Your task to perform on an android device: allow notifications from all sites in the chrome app Image 0: 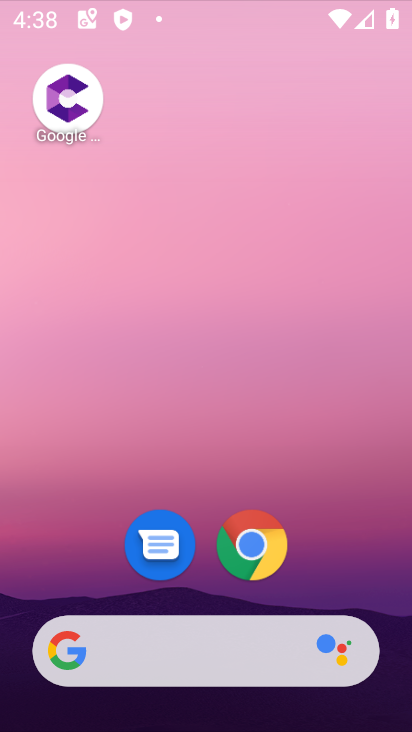
Step 0: drag from (348, 561) to (277, 5)
Your task to perform on an android device: allow notifications from all sites in the chrome app Image 1: 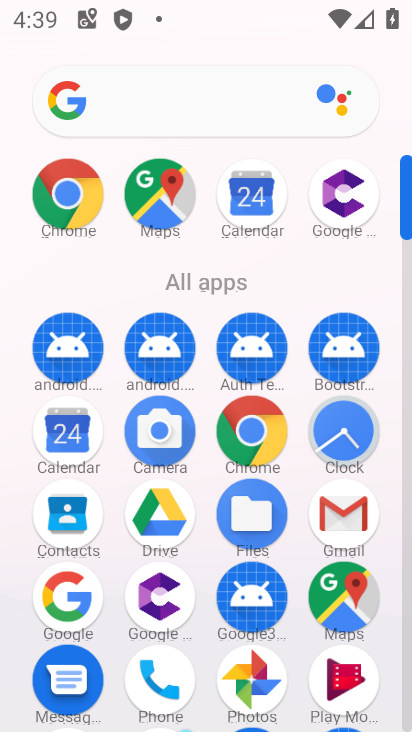
Step 1: click (247, 428)
Your task to perform on an android device: allow notifications from all sites in the chrome app Image 2: 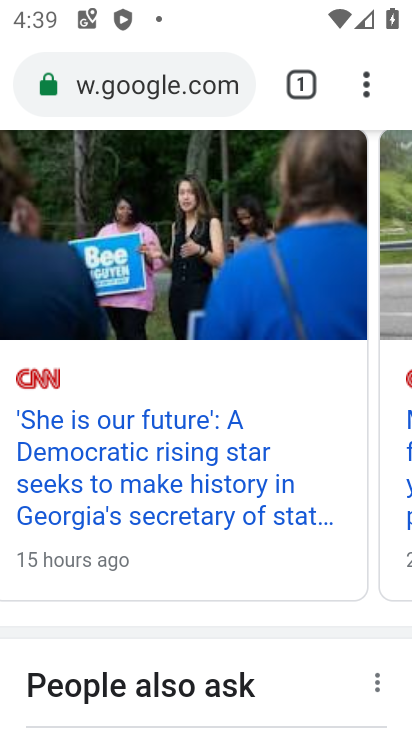
Step 2: drag from (366, 75) to (149, 584)
Your task to perform on an android device: allow notifications from all sites in the chrome app Image 3: 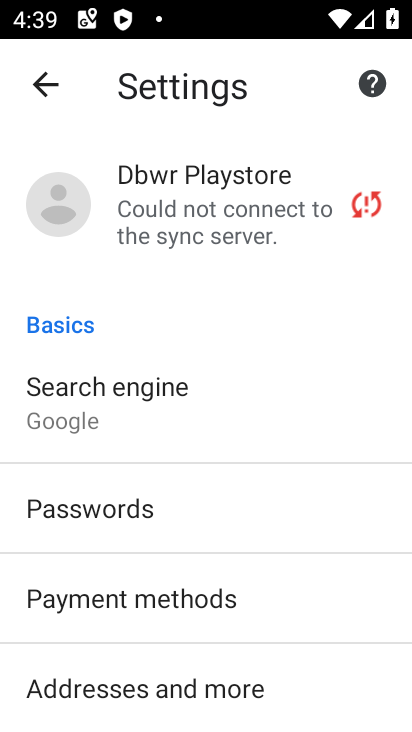
Step 3: drag from (200, 461) to (224, 185)
Your task to perform on an android device: allow notifications from all sites in the chrome app Image 4: 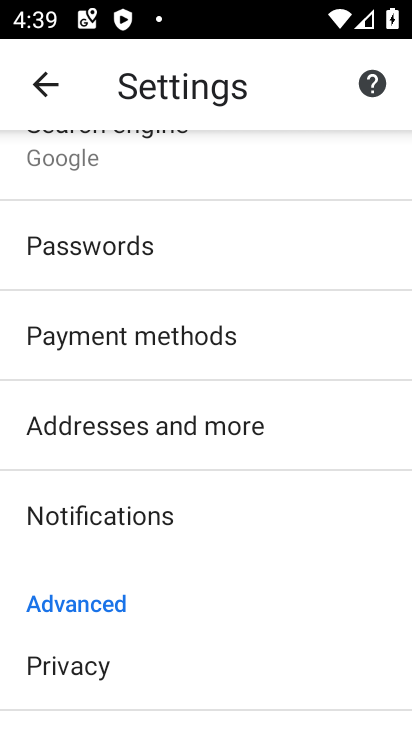
Step 4: drag from (210, 595) to (226, 212)
Your task to perform on an android device: allow notifications from all sites in the chrome app Image 5: 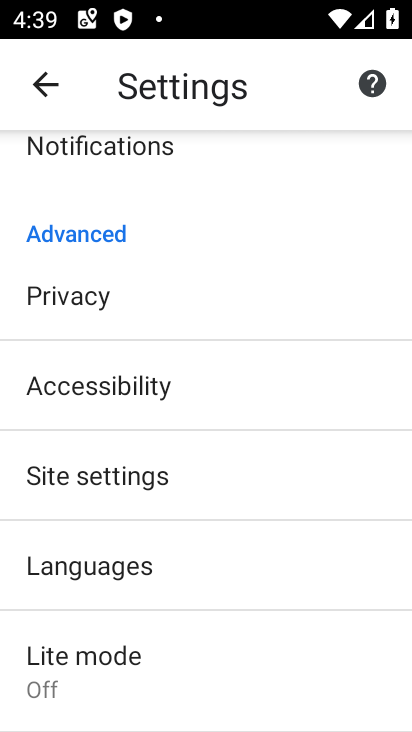
Step 5: drag from (199, 597) to (256, 224)
Your task to perform on an android device: allow notifications from all sites in the chrome app Image 6: 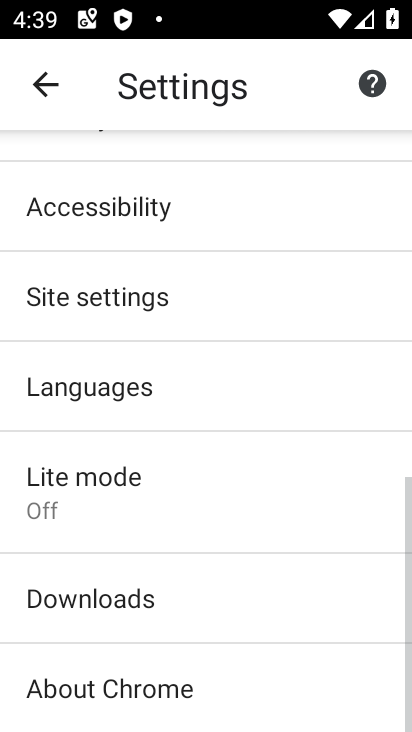
Step 6: drag from (257, 297) to (257, 640)
Your task to perform on an android device: allow notifications from all sites in the chrome app Image 7: 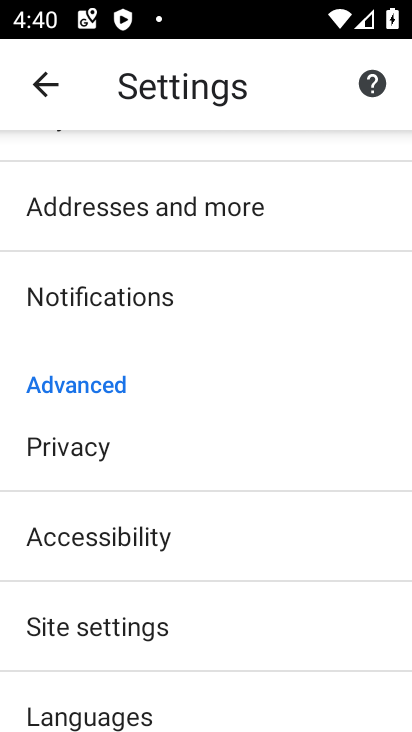
Step 7: click (146, 296)
Your task to perform on an android device: allow notifications from all sites in the chrome app Image 8: 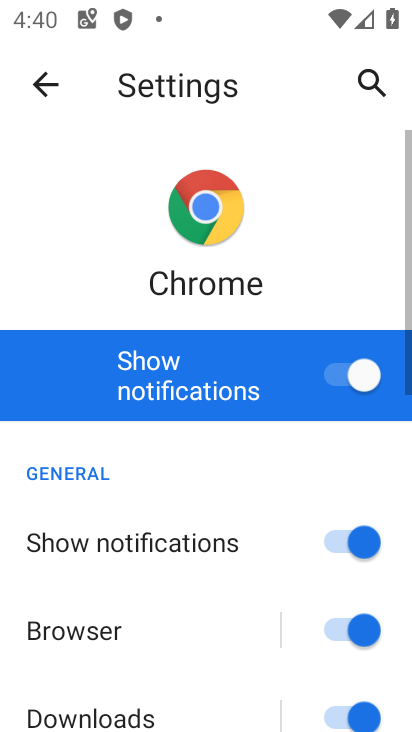
Step 8: click (50, 90)
Your task to perform on an android device: allow notifications from all sites in the chrome app Image 9: 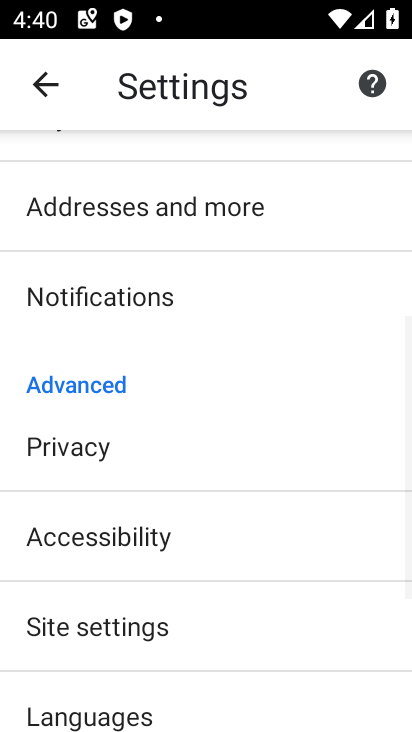
Step 9: click (186, 617)
Your task to perform on an android device: allow notifications from all sites in the chrome app Image 10: 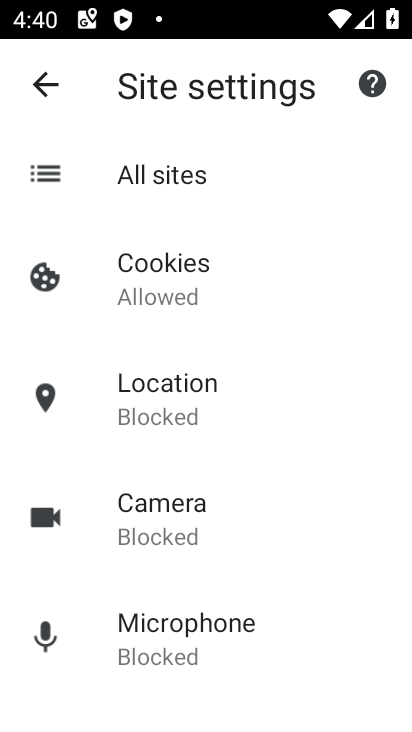
Step 10: drag from (231, 603) to (259, 142)
Your task to perform on an android device: allow notifications from all sites in the chrome app Image 11: 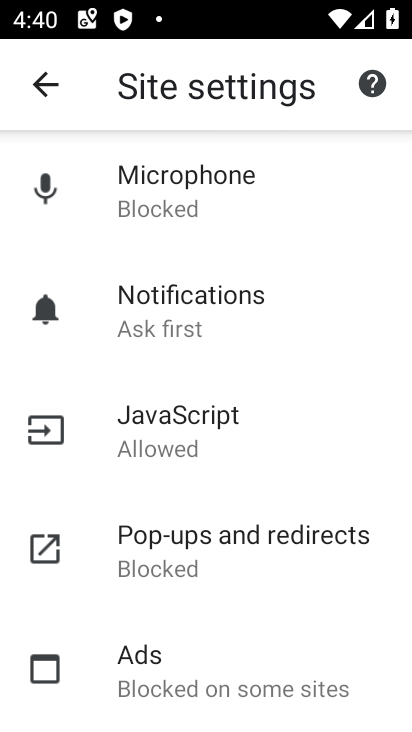
Step 11: drag from (251, 192) to (248, 392)
Your task to perform on an android device: allow notifications from all sites in the chrome app Image 12: 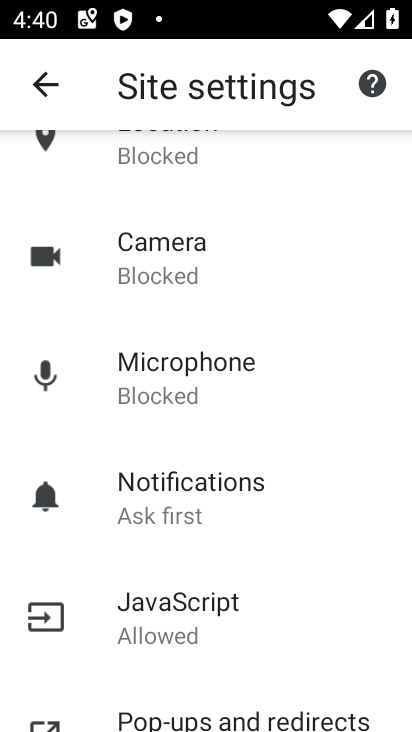
Step 12: click (191, 524)
Your task to perform on an android device: allow notifications from all sites in the chrome app Image 13: 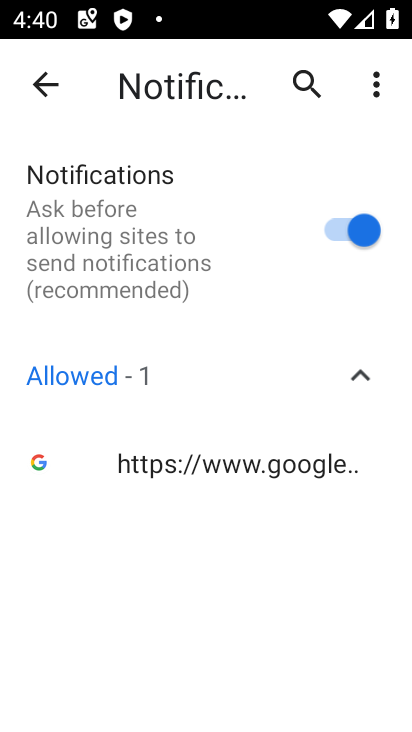
Step 13: task complete